Your task to perform on an android device: Open Google Image 0: 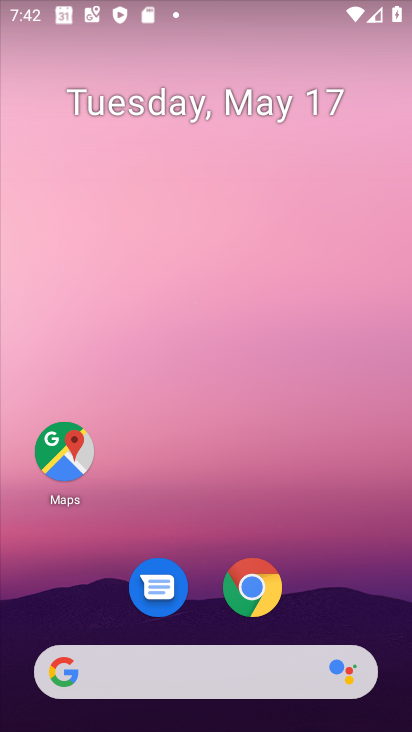
Step 0: drag from (151, 631) to (157, 303)
Your task to perform on an android device: Open Google Image 1: 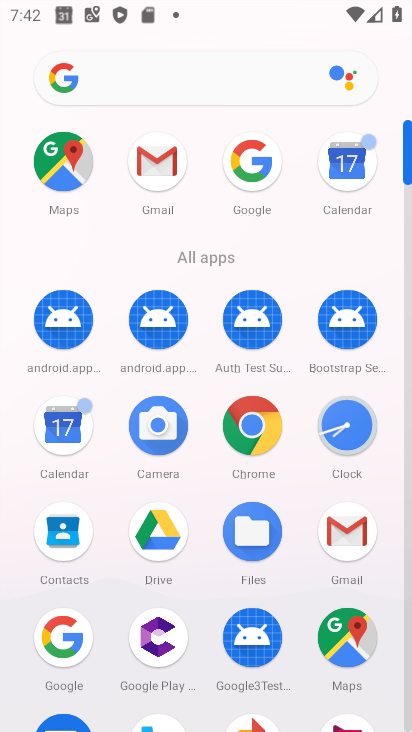
Step 1: click (252, 158)
Your task to perform on an android device: Open Google Image 2: 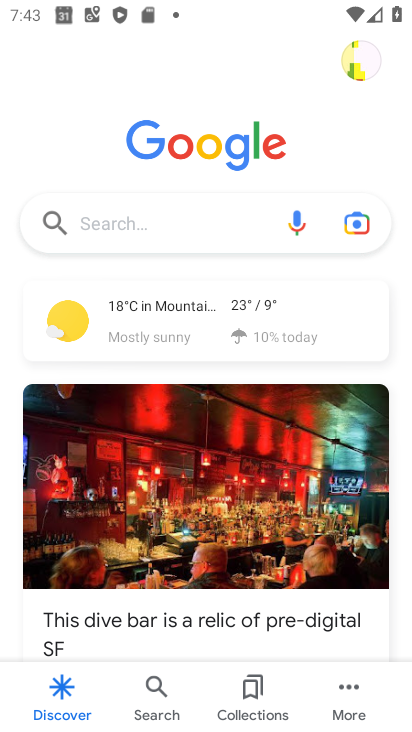
Step 2: task complete